Your task to perform on an android device: Search for Mexican restaurants on Maps Image 0: 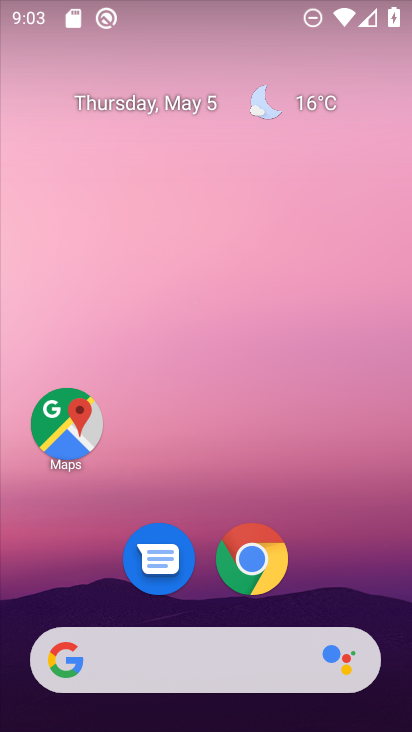
Step 0: click (66, 427)
Your task to perform on an android device: Search for Mexican restaurants on Maps Image 1: 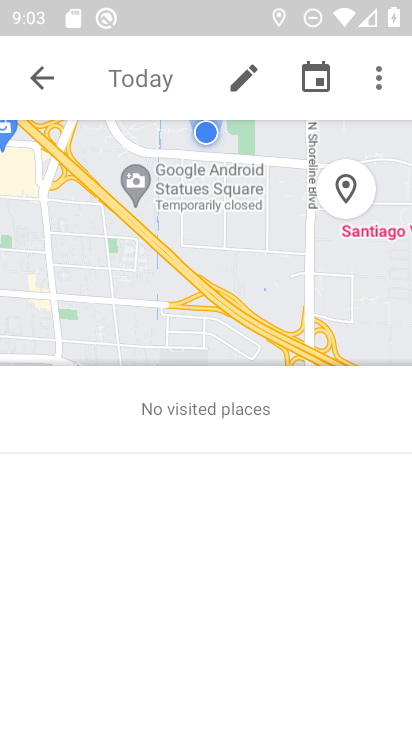
Step 1: click (45, 78)
Your task to perform on an android device: Search for Mexican restaurants on Maps Image 2: 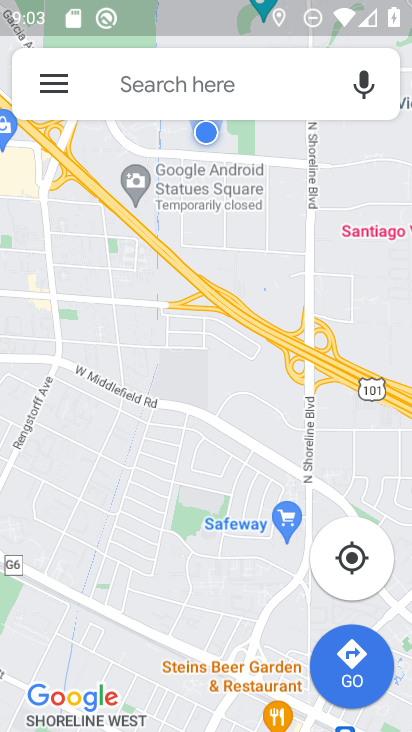
Step 2: click (140, 83)
Your task to perform on an android device: Search for Mexican restaurants on Maps Image 3: 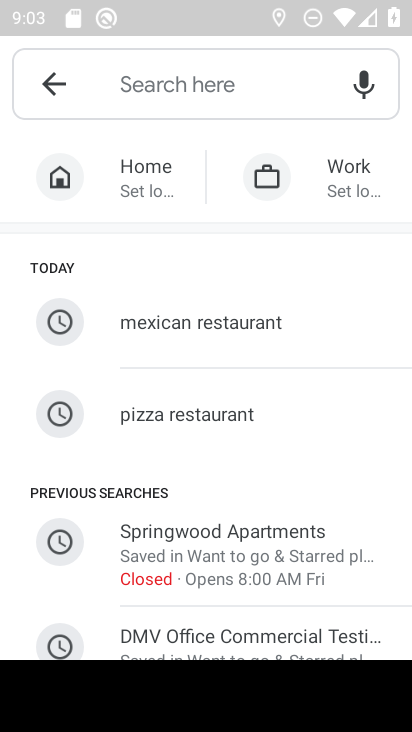
Step 3: click (204, 327)
Your task to perform on an android device: Search for Mexican restaurants on Maps Image 4: 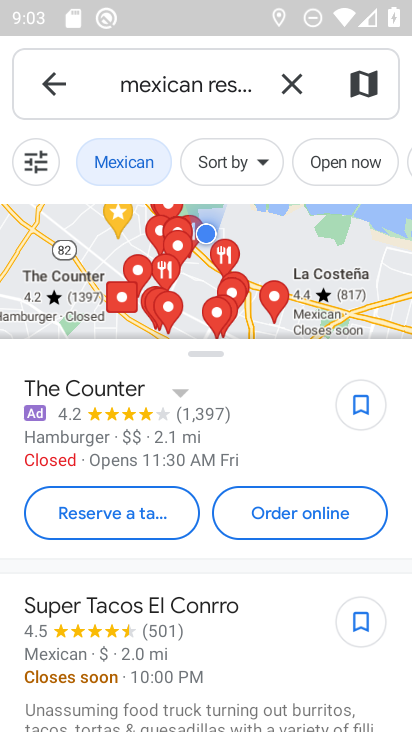
Step 4: task complete